Your task to perform on an android device: Open Google Chrome and click the shortcut for Amazon.com Image 0: 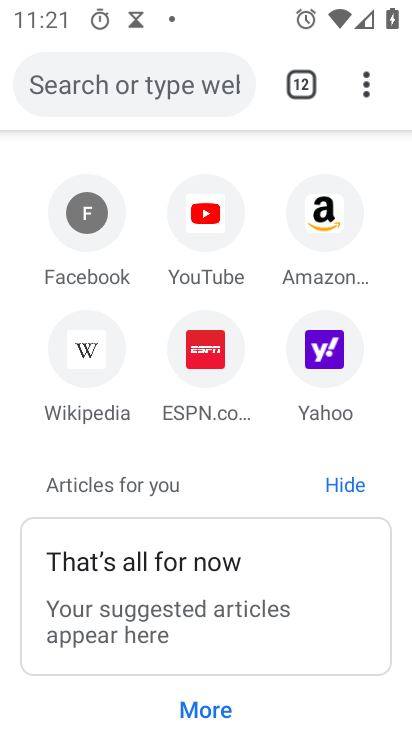
Step 0: press home button
Your task to perform on an android device: Open Google Chrome and click the shortcut for Amazon.com Image 1: 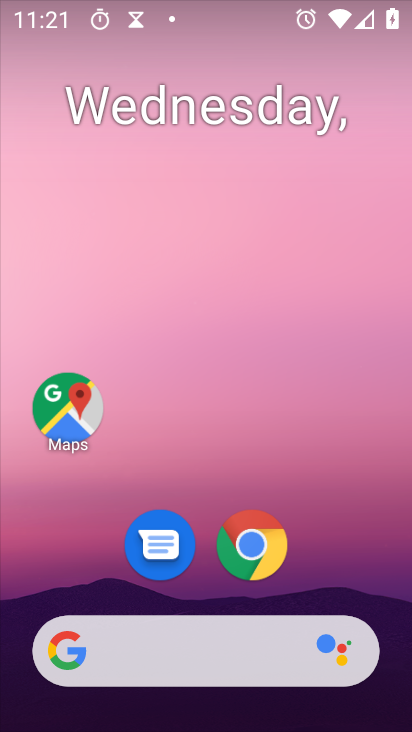
Step 1: click (255, 554)
Your task to perform on an android device: Open Google Chrome and click the shortcut for Amazon.com Image 2: 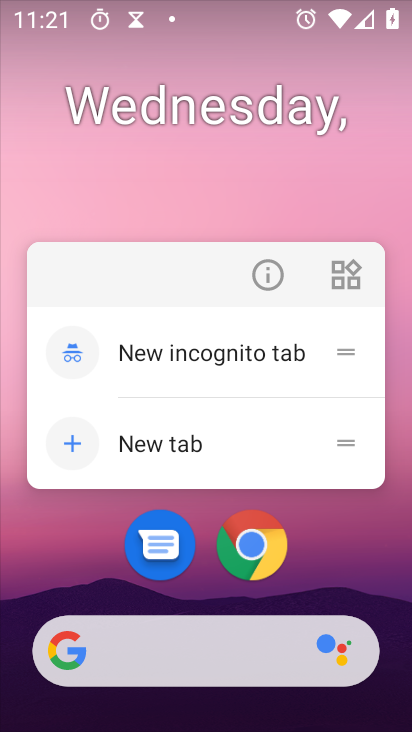
Step 2: click (244, 555)
Your task to perform on an android device: Open Google Chrome and click the shortcut for Amazon.com Image 3: 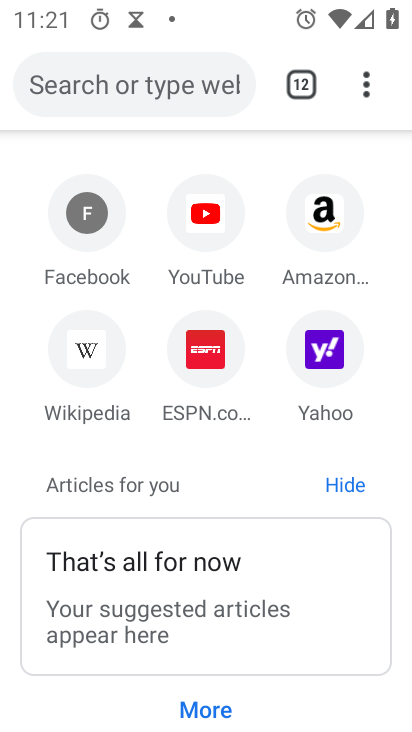
Step 3: click (329, 217)
Your task to perform on an android device: Open Google Chrome and click the shortcut for Amazon.com Image 4: 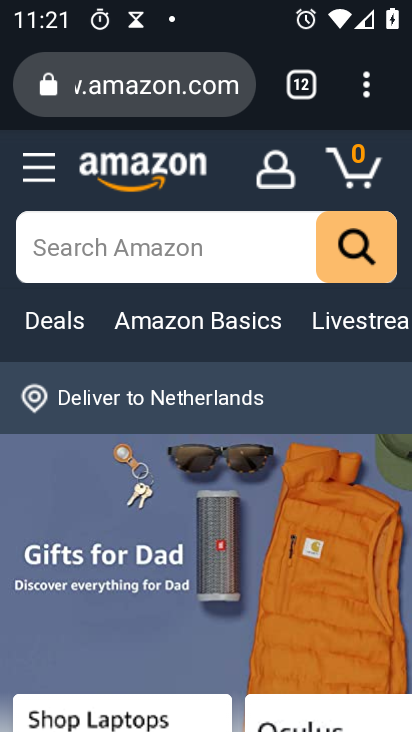
Step 4: task complete